Your task to perform on an android device: add a contact in the contacts app Image 0: 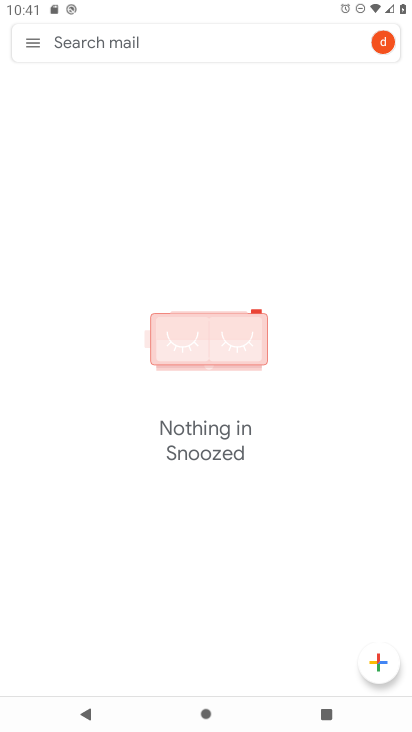
Step 0: press home button
Your task to perform on an android device: add a contact in the contacts app Image 1: 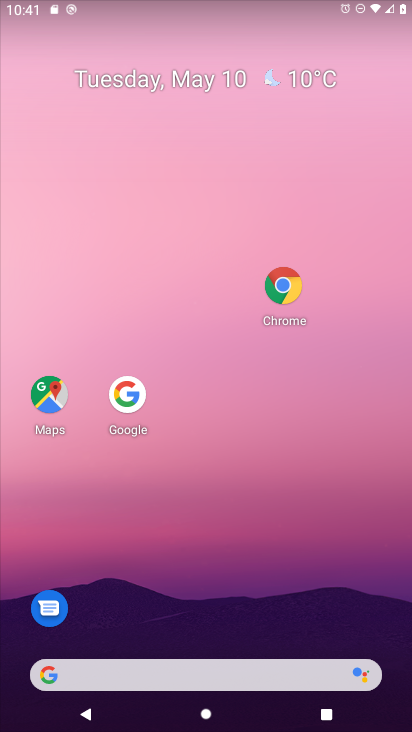
Step 1: drag from (126, 638) to (249, 237)
Your task to perform on an android device: add a contact in the contacts app Image 2: 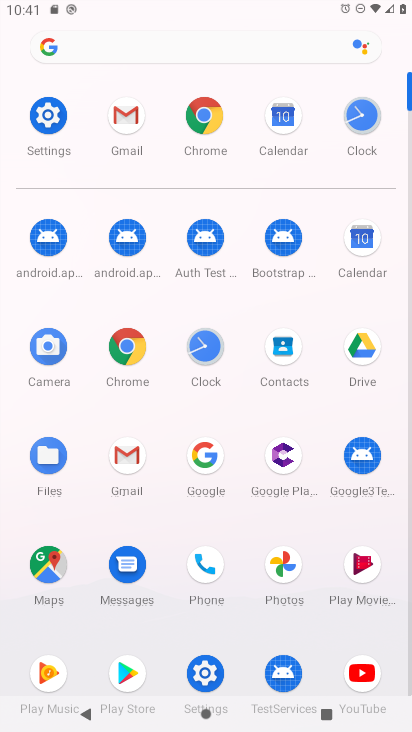
Step 2: click (281, 349)
Your task to perform on an android device: add a contact in the contacts app Image 3: 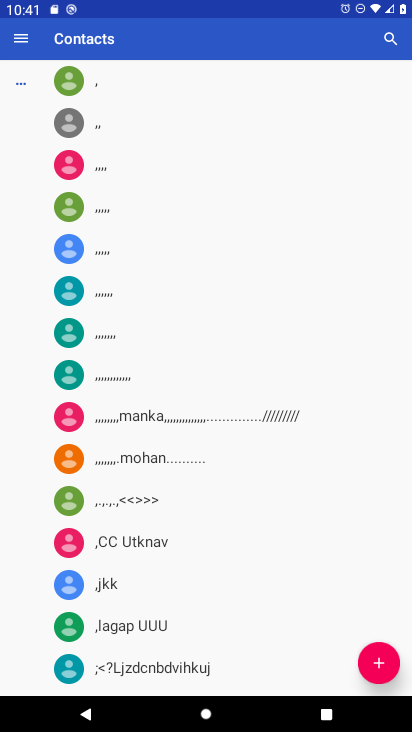
Step 3: click (371, 659)
Your task to perform on an android device: add a contact in the contacts app Image 4: 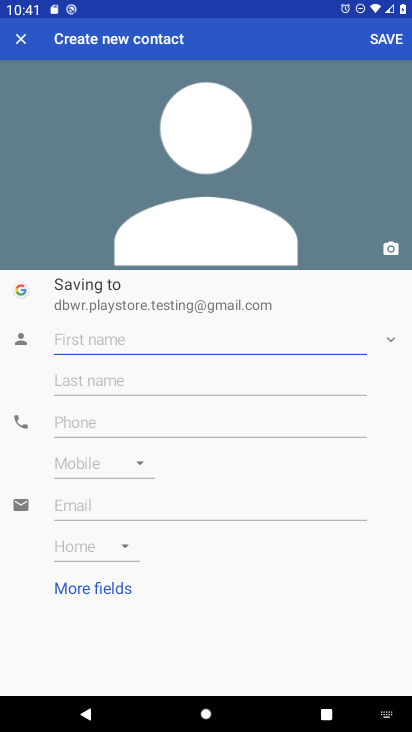
Step 4: type "nhyfj"
Your task to perform on an android device: add a contact in the contacts app Image 5: 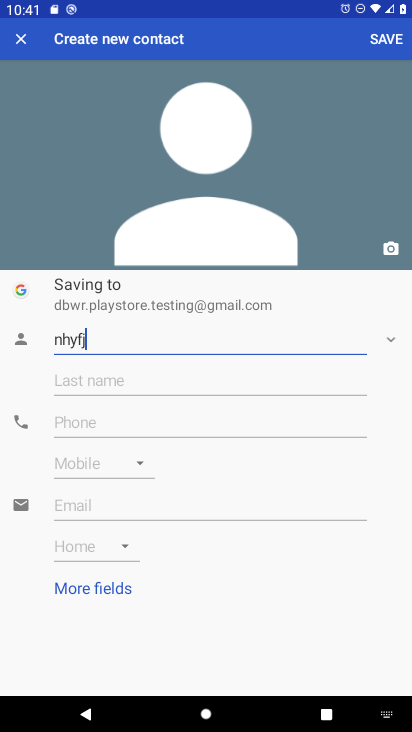
Step 5: click (88, 415)
Your task to perform on an android device: add a contact in the contacts app Image 6: 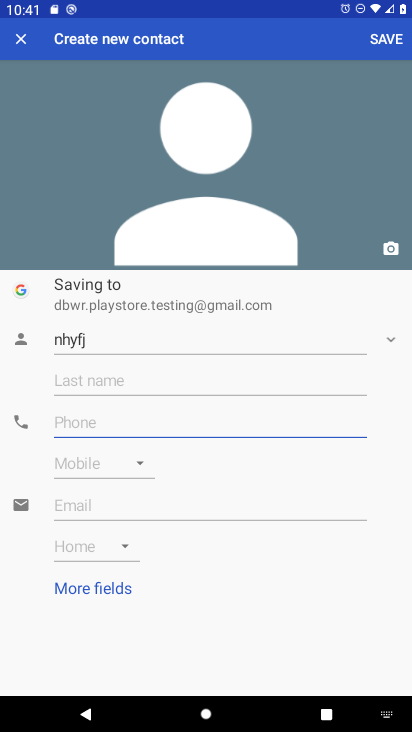
Step 6: type "9678"
Your task to perform on an android device: add a contact in the contacts app Image 7: 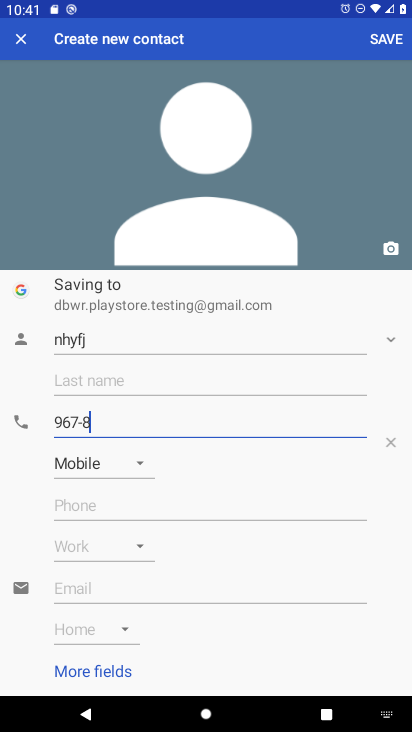
Step 7: click (385, 42)
Your task to perform on an android device: add a contact in the contacts app Image 8: 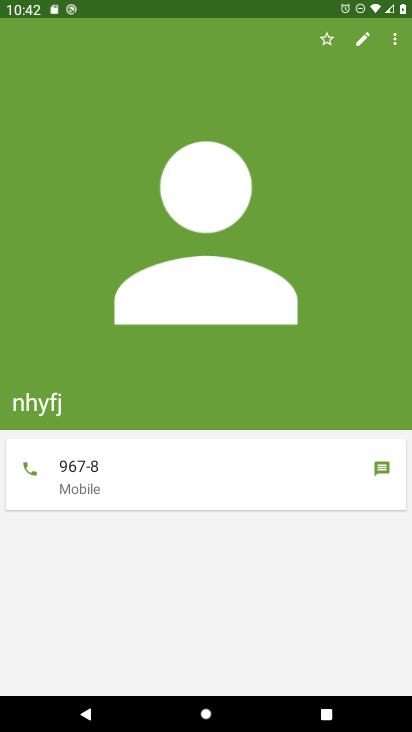
Step 8: task complete